Your task to perform on an android device: Find coffee shops on Maps Image 0: 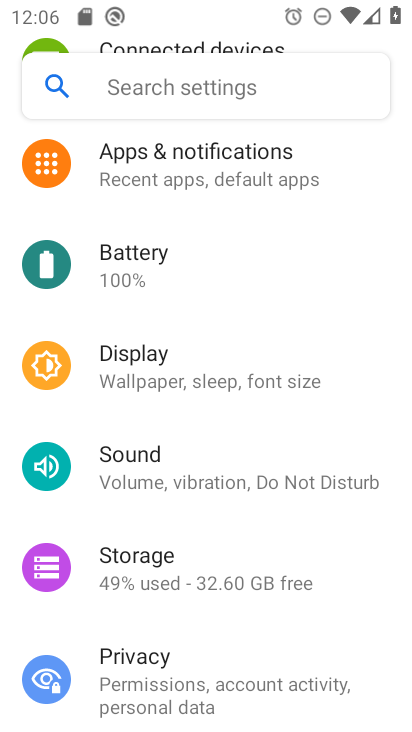
Step 0: press home button
Your task to perform on an android device: Find coffee shops on Maps Image 1: 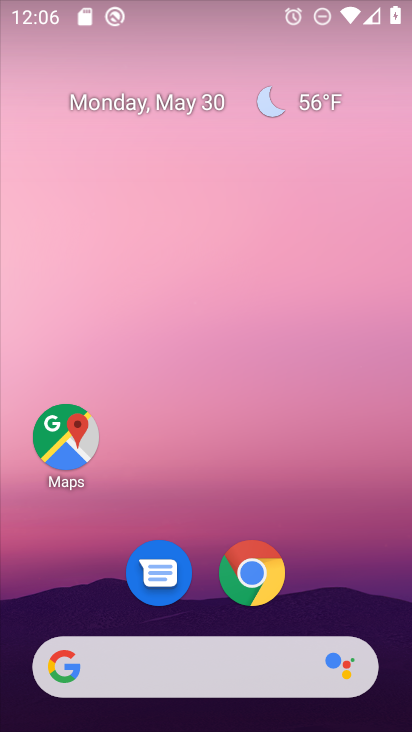
Step 1: drag from (308, 651) to (345, 70)
Your task to perform on an android device: Find coffee shops on Maps Image 2: 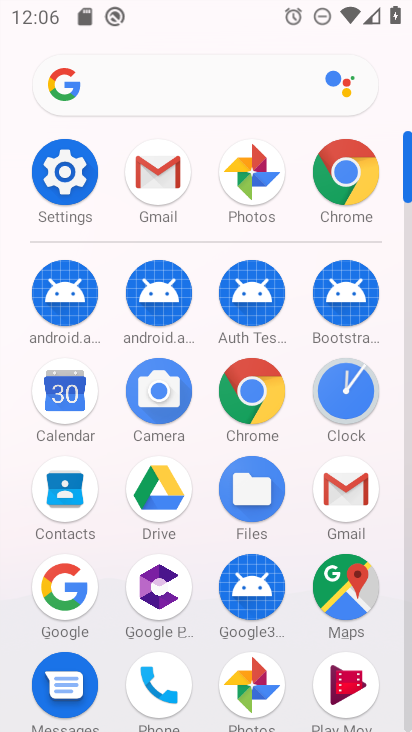
Step 2: click (362, 590)
Your task to perform on an android device: Find coffee shops on Maps Image 3: 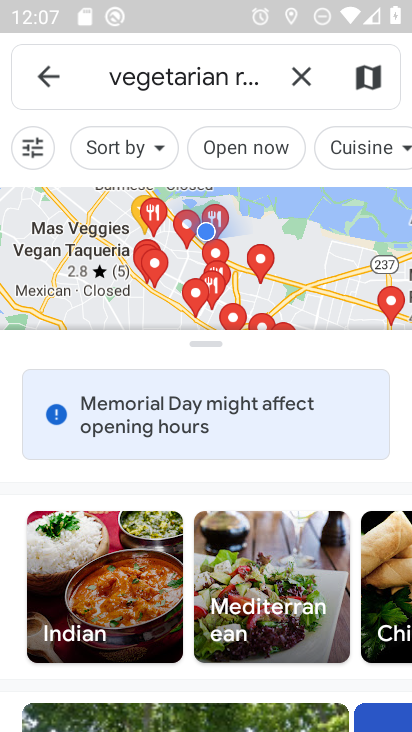
Step 3: press back button
Your task to perform on an android device: Find coffee shops on Maps Image 4: 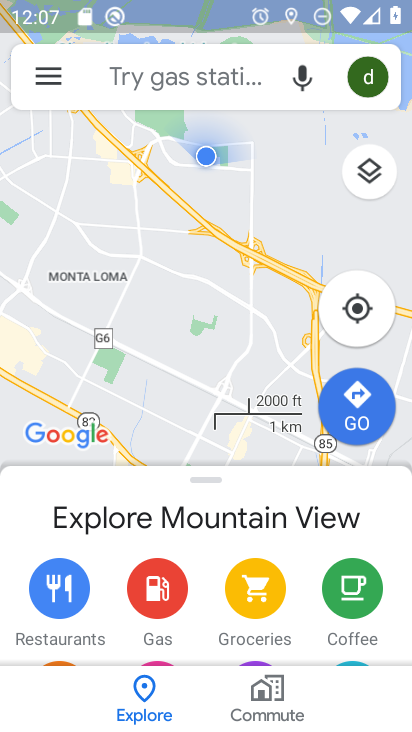
Step 4: click (230, 77)
Your task to perform on an android device: Find coffee shops on Maps Image 5: 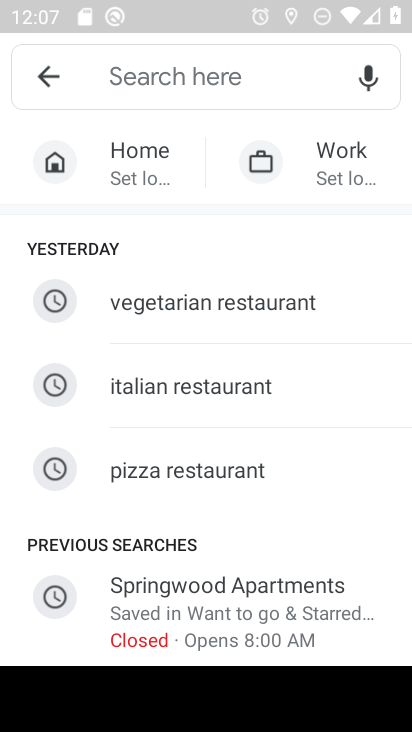
Step 5: type "coffee shops"
Your task to perform on an android device: Find coffee shops on Maps Image 6: 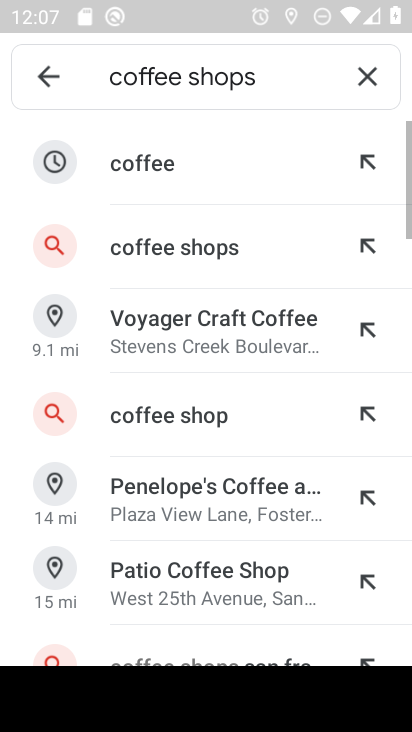
Step 6: click (270, 219)
Your task to perform on an android device: Find coffee shops on Maps Image 7: 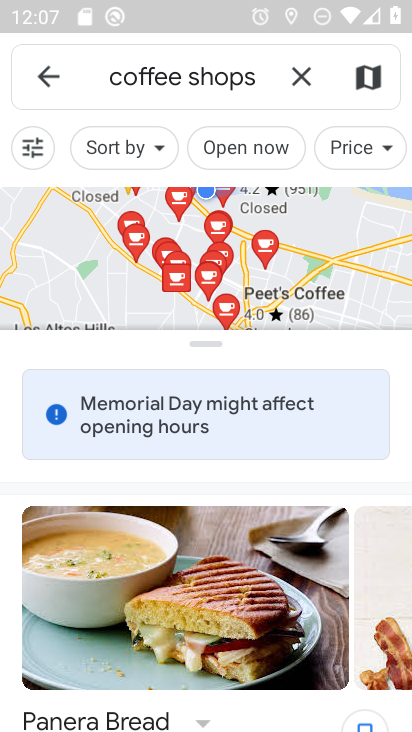
Step 7: task complete